Your task to perform on an android device: add a contact in the contacts app Image 0: 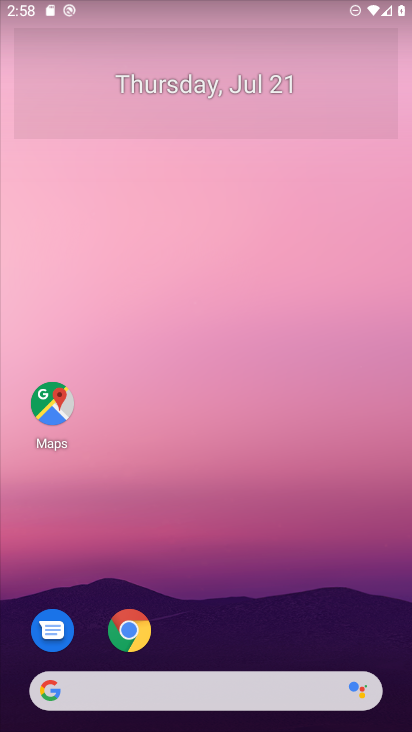
Step 0: drag from (189, 656) to (228, 86)
Your task to perform on an android device: add a contact in the contacts app Image 1: 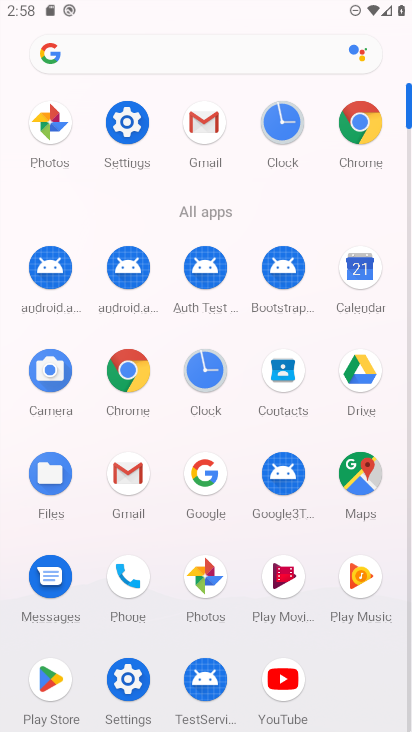
Step 1: click (285, 370)
Your task to perform on an android device: add a contact in the contacts app Image 2: 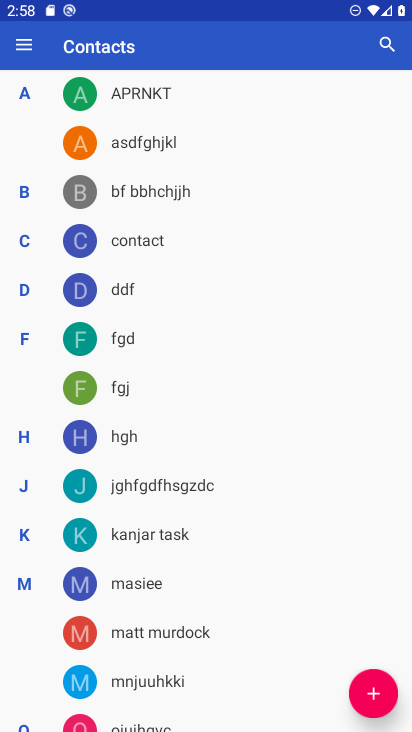
Step 2: click (365, 686)
Your task to perform on an android device: add a contact in the contacts app Image 3: 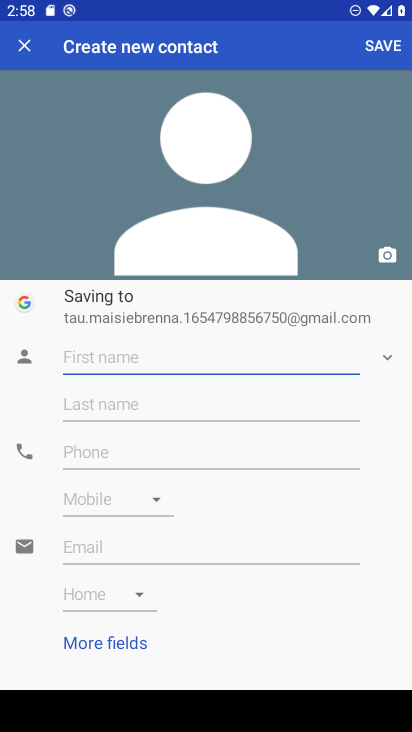
Step 3: click (102, 354)
Your task to perform on an android device: add a contact in the contacts app Image 4: 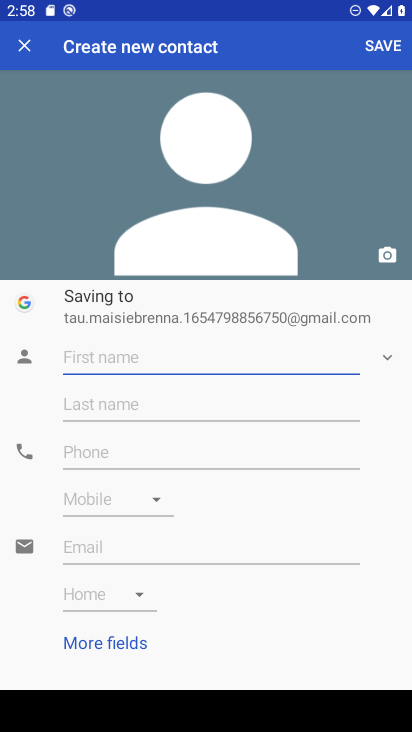
Step 4: type "cgcgc"
Your task to perform on an android device: add a contact in the contacts app Image 5: 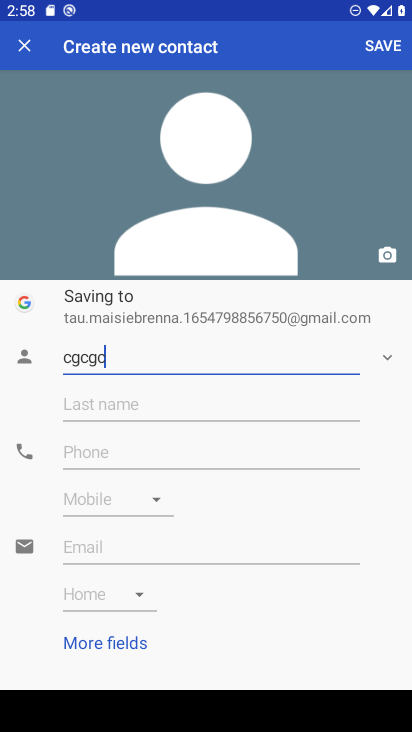
Step 5: click (54, 439)
Your task to perform on an android device: add a contact in the contacts app Image 6: 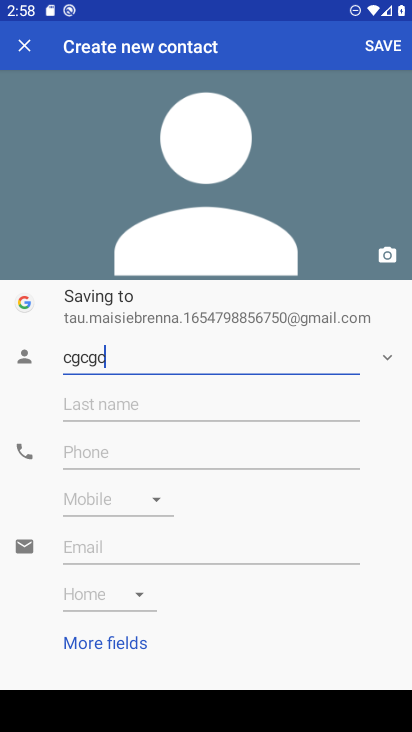
Step 6: type "6768"
Your task to perform on an android device: add a contact in the contacts app Image 7: 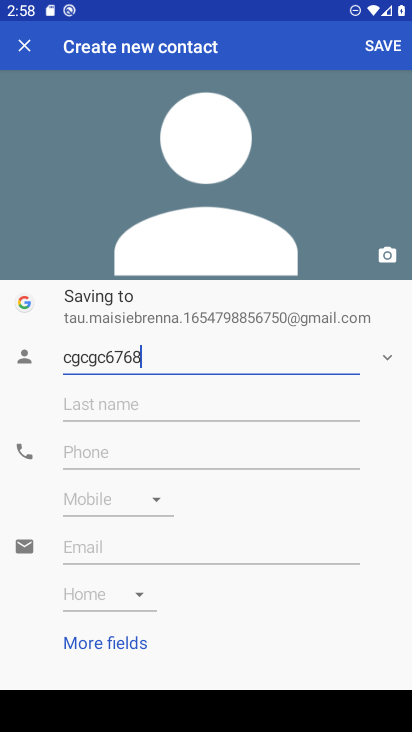
Step 7: click (82, 453)
Your task to perform on an android device: add a contact in the contacts app Image 8: 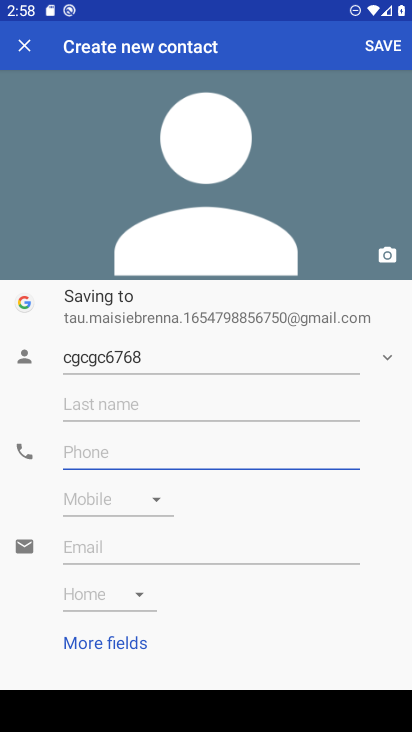
Step 8: type "767698h"
Your task to perform on an android device: add a contact in the contacts app Image 9: 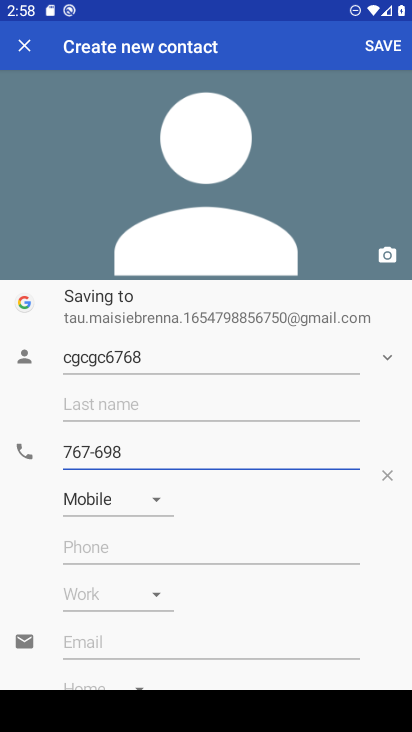
Step 9: click (388, 45)
Your task to perform on an android device: add a contact in the contacts app Image 10: 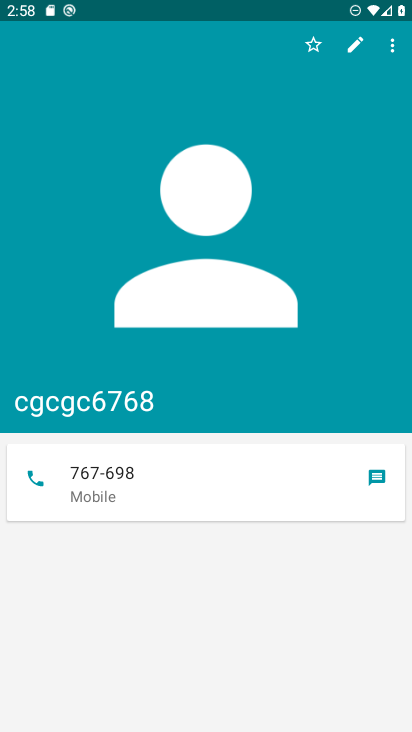
Step 10: task complete